Your task to perform on an android device: toggle airplane mode Image 0: 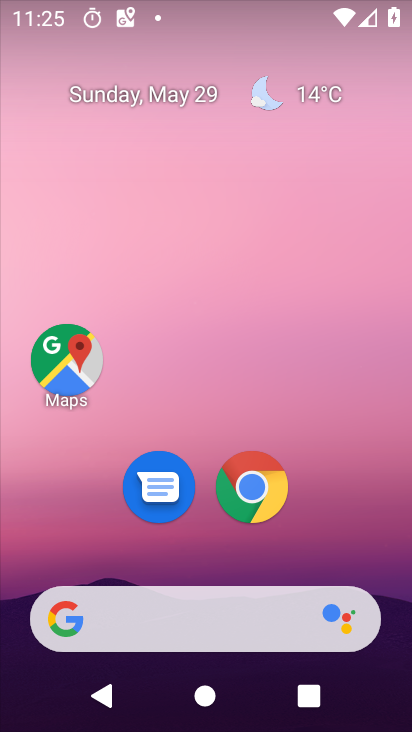
Step 0: drag from (402, 492) to (378, 167)
Your task to perform on an android device: toggle airplane mode Image 1: 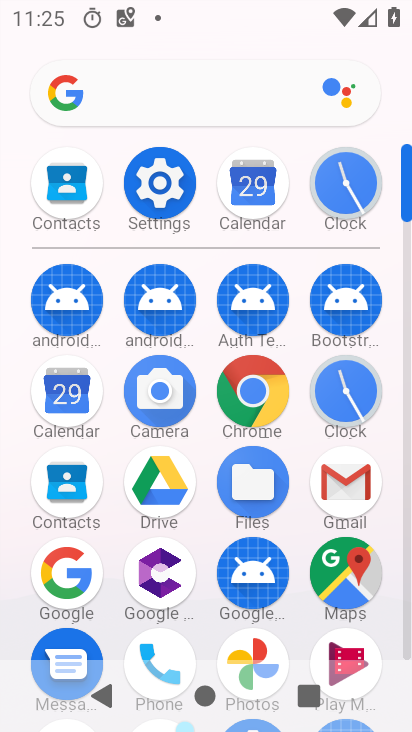
Step 1: click (151, 195)
Your task to perform on an android device: toggle airplane mode Image 2: 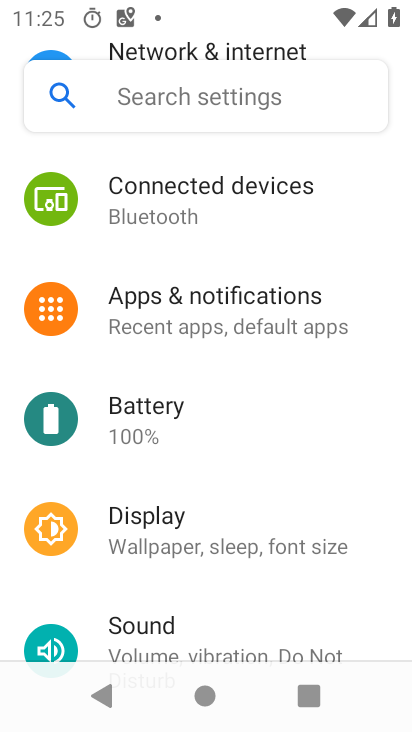
Step 2: drag from (373, 102) to (363, 494)
Your task to perform on an android device: toggle airplane mode Image 3: 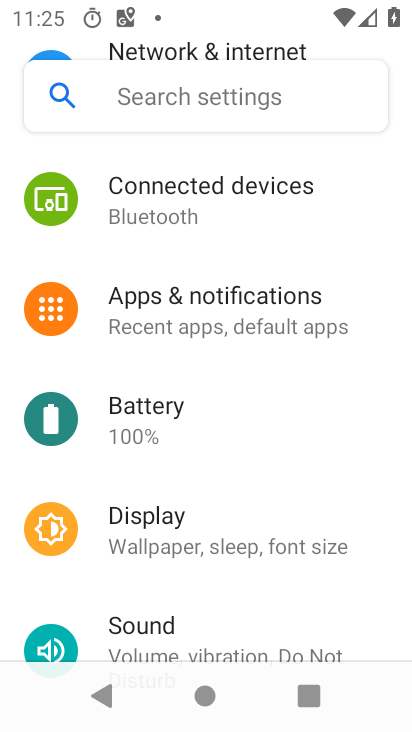
Step 3: click (248, 50)
Your task to perform on an android device: toggle airplane mode Image 4: 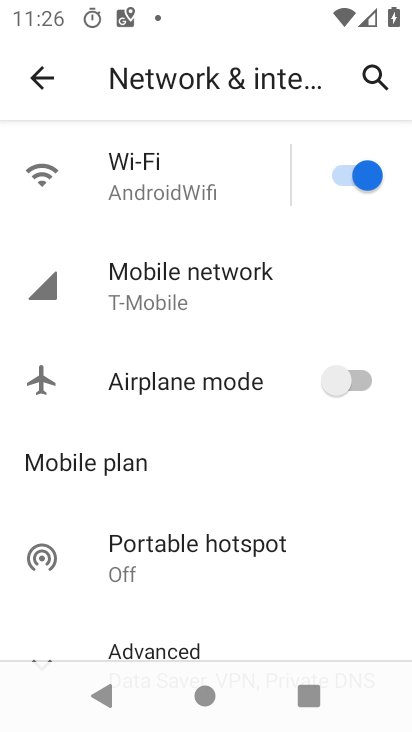
Step 4: click (369, 382)
Your task to perform on an android device: toggle airplane mode Image 5: 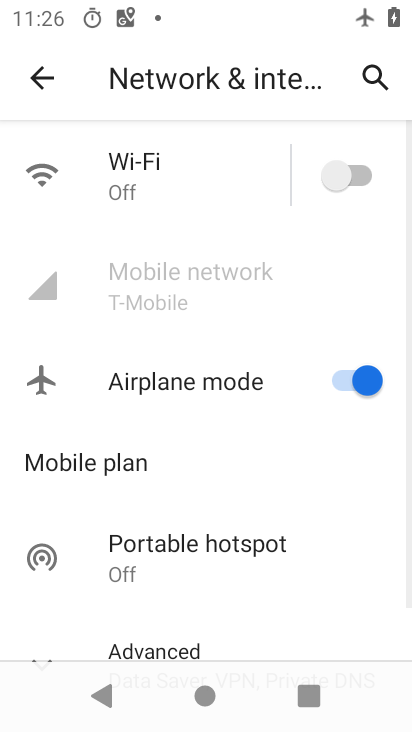
Step 5: task complete